Your task to perform on an android device: open app "DuckDuckGo Privacy Browser" (install if not already installed) and enter user name: "cleaving@outlook.com" and password: "freighters" Image 0: 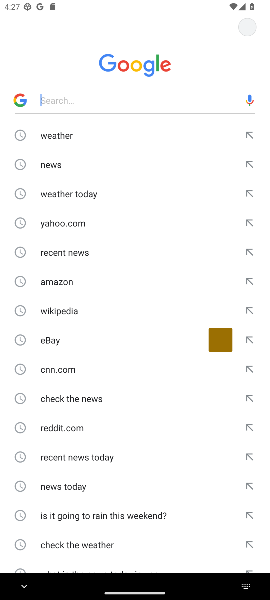
Step 0: press back button
Your task to perform on an android device: open app "DuckDuckGo Privacy Browser" (install if not already installed) and enter user name: "cleaving@outlook.com" and password: "freighters" Image 1: 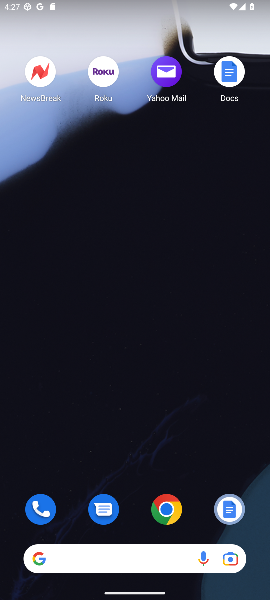
Step 1: drag from (119, 506) to (209, 24)
Your task to perform on an android device: open app "DuckDuckGo Privacy Browser" (install if not already installed) and enter user name: "cleaving@outlook.com" and password: "freighters" Image 2: 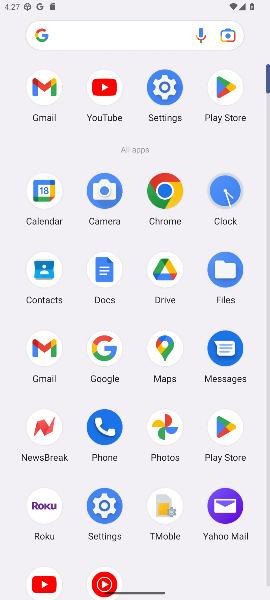
Step 2: click (160, 87)
Your task to perform on an android device: open app "DuckDuckGo Privacy Browser" (install if not already installed) and enter user name: "cleaving@outlook.com" and password: "freighters" Image 3: 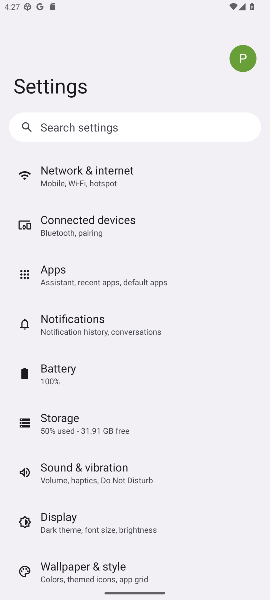
Step 3: click (75, 512)
Your task to perform on an android device: open app "DuckDuckGo Privacy Browser" (install if not already installed) and enter user name: "cleaving@outlook.com" and password: "freighters" Image 4: 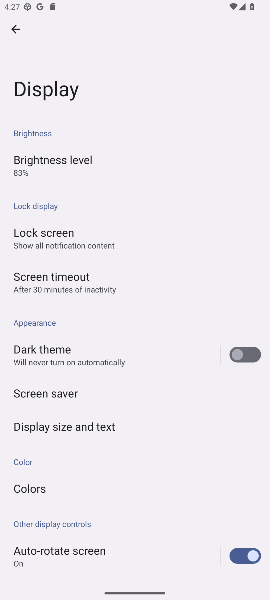
Step 4: drag from (124, 497) to (167, 246)
Your task to perform on an android device: open app "DuckDuckGo Privacy Browser" (install if not already installed) and enter user name: "cleaving@outlook.com" and password: "freighters" Image 5: 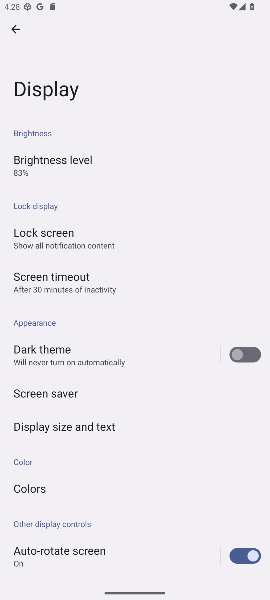
Step 5: click (103, 423)
Your task to perform on an android device: open app "DuckDuckGo Privacy Browser" (install if not already installed) and enter user name: "cleaving@outlook.com" and password: "freighters" Image 6: 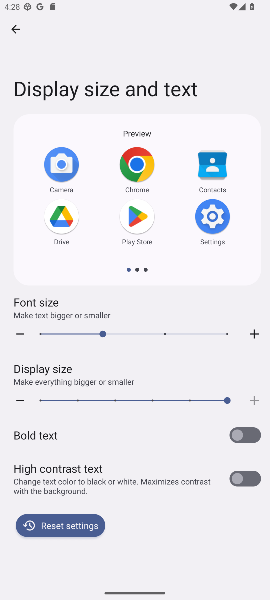
Step 6: click (155, 398)
Your task to perform on an android device: open app "DuckDuckGo Privacy Browser" (install if not already installed) and enter user name: "cleaving@outlook.com" and password: "freighters" Image 7: 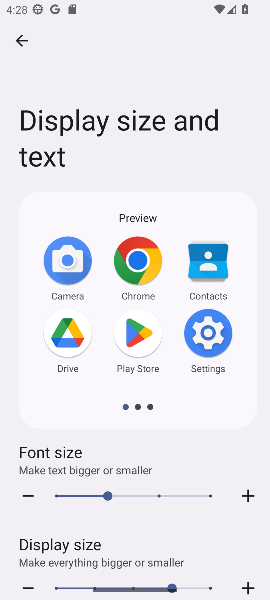
Step 7: drag from (111, 494) to (165, 493)
Your task to perform on an android device: open app "DuckDuckGo Privacy Browser" (install if not already installed) and enter user name: "cleaving@outlook.com" and password: "freighters" Image 8: 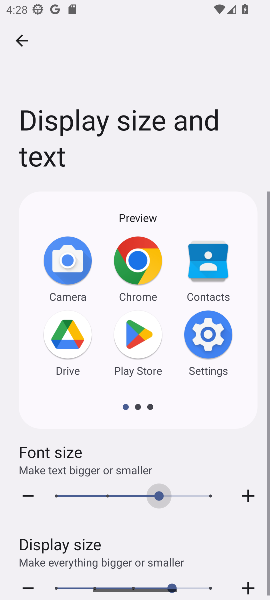
Step 8: click (129, 581)
Your task to perform on an android device: open app "DuckDuckGo Privacy Browser" (install if not already installed) and enter user name: "cleaving@outlook.com" and password: "freighters" Image 9: 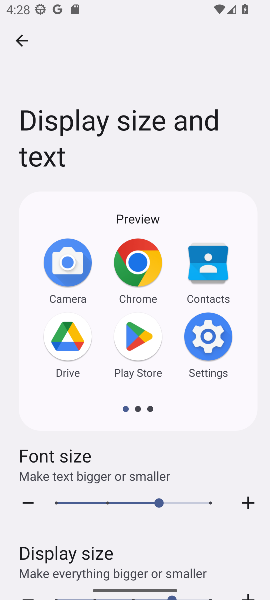
Step 9: drag from (194, 548) to (227, 199)
Your task to perform on an android device: open app "DuckDuckGo Privacy Browser" (install if not already installed) and enter user name: "cleaving@outlook.com" and password: "freighters" Image 10: 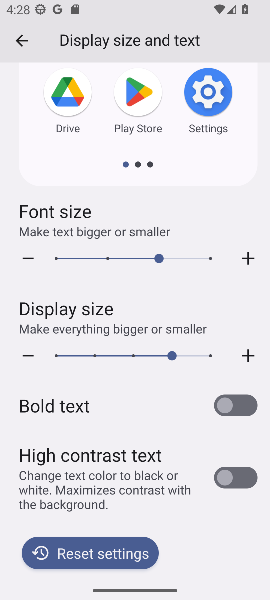
Step 10: click (135, 354)
Your task to perform on an android device: open app "DuckDuckGo Privacy Browser" (install if not already installed) and enter user name: "cleaving@outlook.com" and password: "freighters" Image 11: 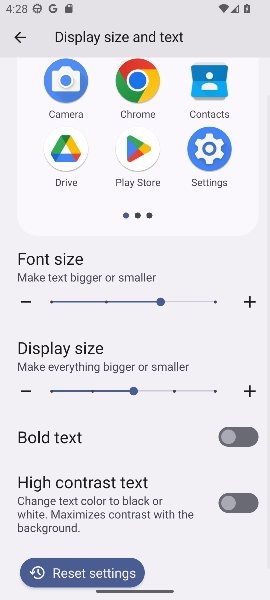
Step 11: press back button
Your task to perform on an android device: open app "DuckDuckGo Privacy Browser" (install if not already installed) and enter user name: "cleaving@outlook.com" and password: "freighters" Image 12: 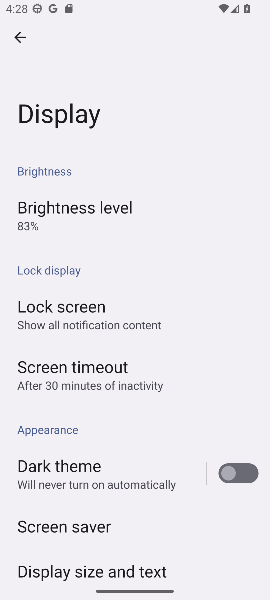
Step 12: press back button
Your task to perform on an android device: open app "DuckDuckGo Privacy Browser" (install if not already installed) and enter user name: "cleaving@outlook.com" and password: "freighters" Image 13: 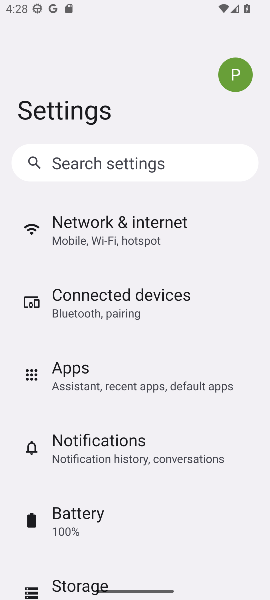
Step 13: press back button
Your task to perform on an android device: open app "DuckDuckGo Privacy Browser" (install if not already installed) and enter user name: "cleaving@outlook.com" and password: "freighters" Image 14: 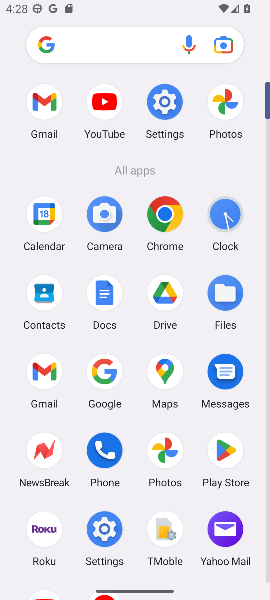
Step 14: click (223, 449)
Your task to perform on an android device: open app "DuckDuckGo Privacy Browser" (install if not already installed) and enter user name: "cleaving@outlook.com" and password: "freighters" Image 15: 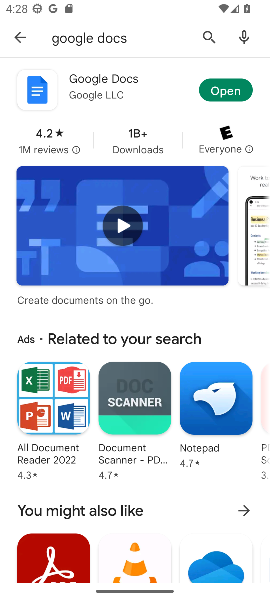
Step 15: click (209, 33)
Your task to perform on an android device: open app "DuckDuckGo Privacy Browser" (install if not already installed) and enter user name: "cleaving@outlook.com" and password: "freighters" Image 16: 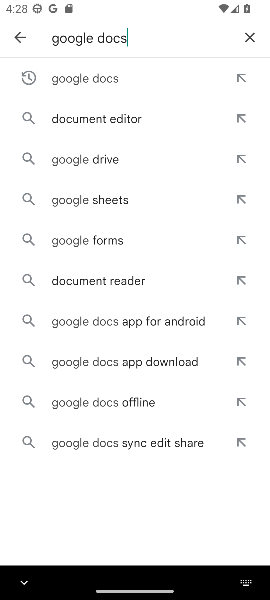
Step 16: click (252, 34)
Your task to perform on an android device: open app "DuckDuckGo Privacy Browser" (install if not already installed) and enter user name: "cleaving@outlook.com" and password: "freighters" Image 17: 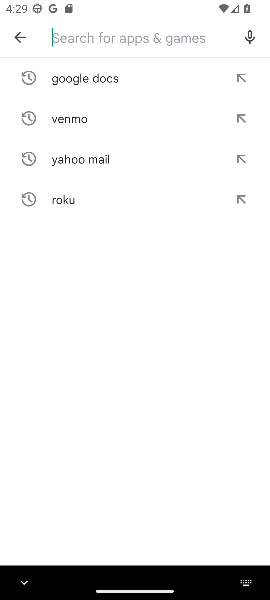
Step 17: click (100, 41)
Your task to perform on an android device: open app "DuckDuckGo Privacy Browser" (install if not already installed) and enter user name: "cleaving@outlook.com" and password: "freighters" Image 18: 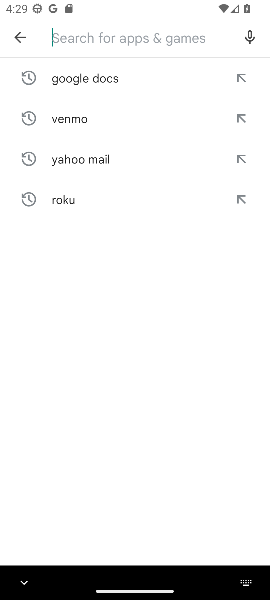
Step 18: type "DuckDuckGo Privacy Browser"
Your task to perform on an android device: open app "DuckDuckGo Privacy Browser" (install if not already installed) and enter user name: "cleaving@outlook.com" and password: "freighters" Image 19: 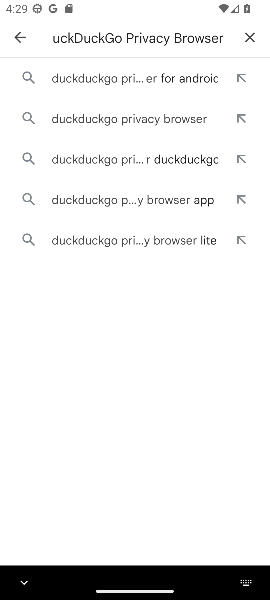
Step 19: click (150, 74)
Your task to perform on an android device: open app "DuckDuckGo Privacy Browser" (install if not already installed) and enter user name: "cleaving@outlook.com" and password: "freighters" Image 20: 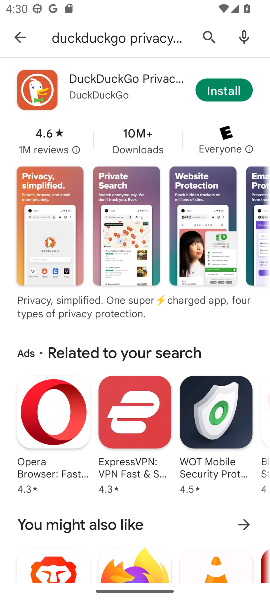
Step 20: click (217, 92)
Your task to perform on an android device: open app "DuckDuckGo Privacy Browser" (install if not already installed) and enter user name: "cleaving@outlook.com" and password: "freighters" Image 21: 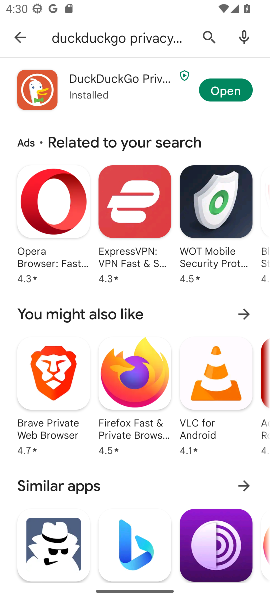
Step 21: click (240, 90)
Your task to perform on an android device: open app "DuckDuckGo Privacy Browser" (install if not already installed) and enter user name: "cleaving@outlook.com" and password: "freighters" Image 22: 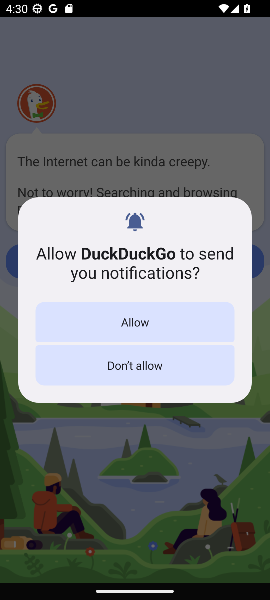
Step 22: click (137, 370)
Your task to perform on an android device: open app "DuckDuckGo Privacy Browser" (install if not already installed) and enter user name: "cleaving@outlook.com" and password: "freighters" Image 23: 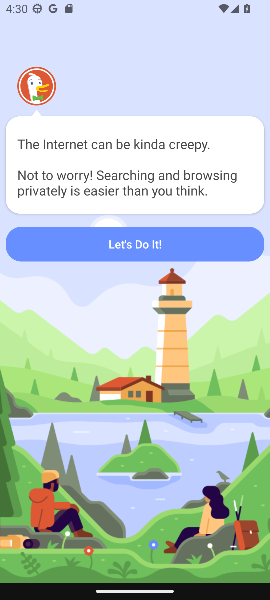
Step 23: click (116, 243)
Your task to perform on an android device: open app "DuckDuckGo Privacy Browser" (install if not already installed) and enter user name: "cleaving@outlook.com" and password: "freighters" Image 24: 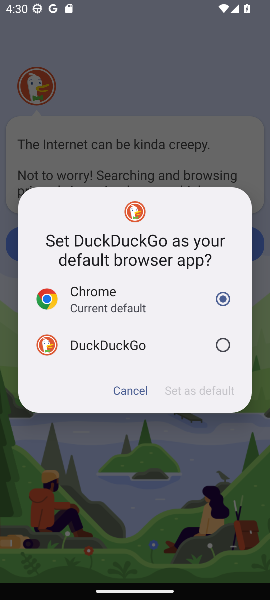
Step 24: click (141, 354)
Your task to perform on an android device: open app "DuckDuckGo Privacy Browser" (install if not already installed) and enter user name: "cleaving@outlook.com" and password: "freighters" Image 25: 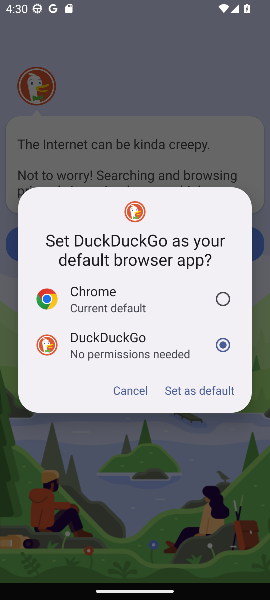
Step 25: click (147, 390)
Your task to perform on an android device: open app "DuckDuckGo Privacy Browser" (install if not already installed) and enter user name: "cleaving@outlook.com" and password: "freighters" Image 26: 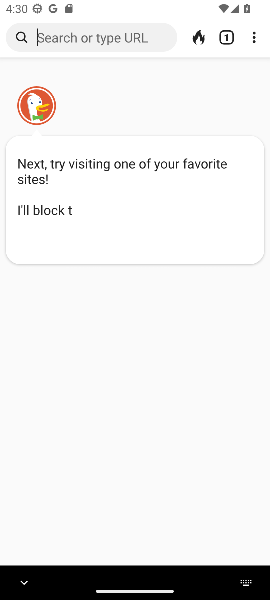
Step 26: task complete